Your task to perform on an android device: turn on the 24-hour format for clock Image 0: 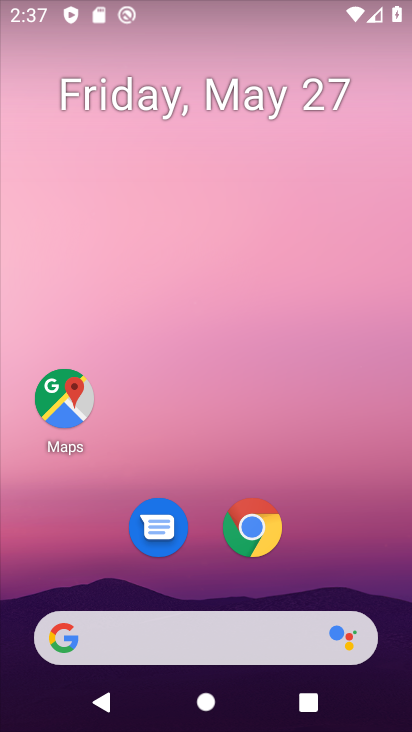
Step 0: drag from (288, 569) to (369, 22)
Your task to perform on an android device: turn on the 24-hour format for clock Image 1: 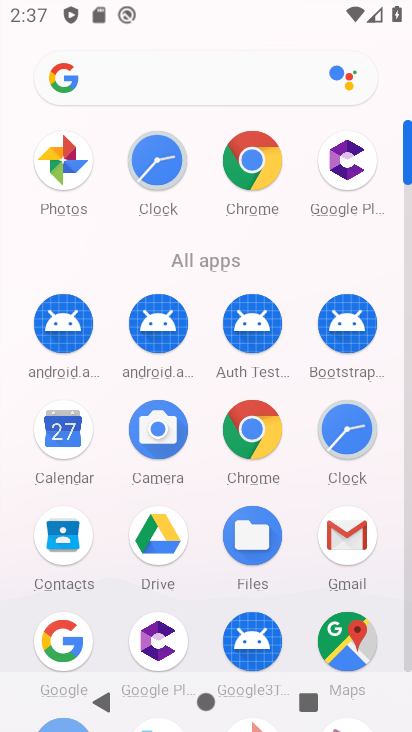
Step 1: click (334, 448)
Your task to perform on an android device: turn on the 24-hour format for clock Image 2: 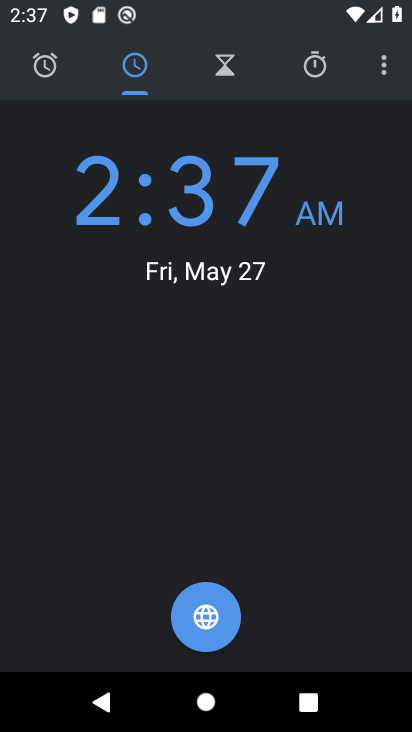
Step 2: click (387, 71)
Your task to perform on an android device: turn on the 24-hour format for clock Image 3: 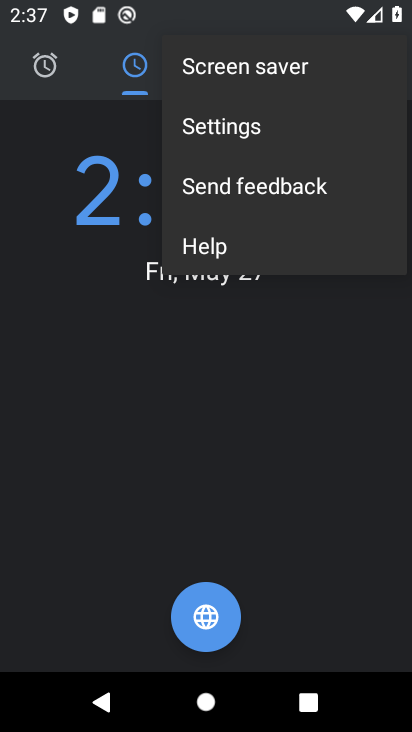
Step 3: click (296, 109)
Your task to perform on an android device: turn on the 24-hour format for clock Image 4: 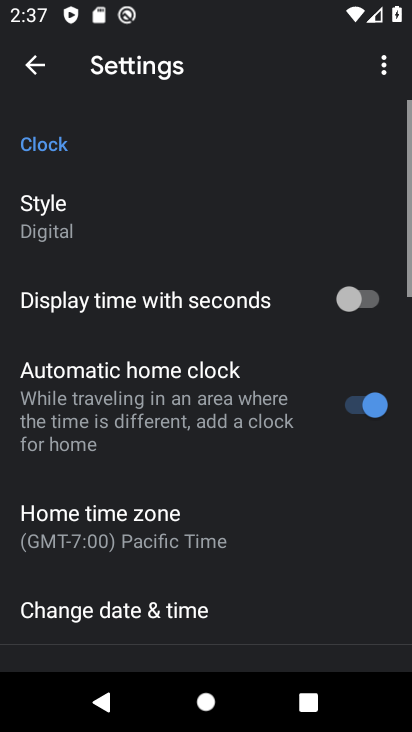
Step 4: drag from (238, 580) to (243, 267)
Your task to perform on an android device: turn on the 24-hour format for clock Image 5: 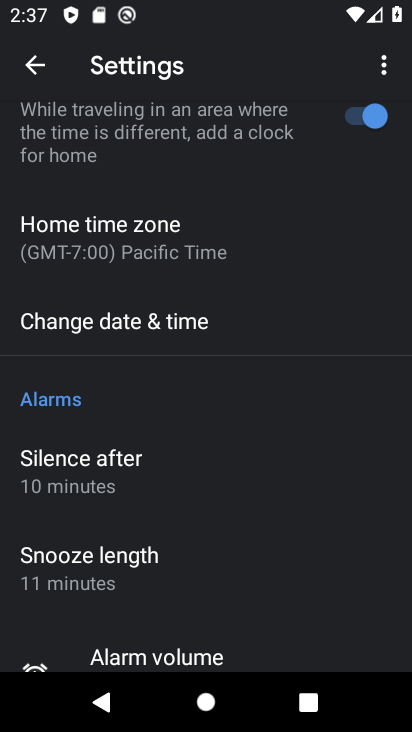
Step 5: click (155, 326)
Your task to perform on an android device: turn on the 24-hour format for clock Image 6: 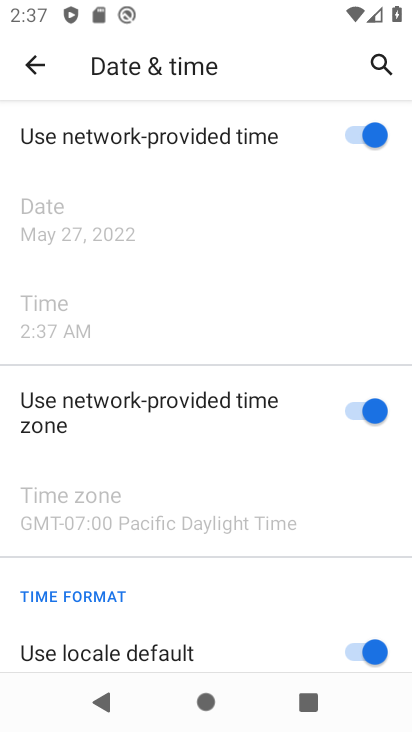
Step 6: drag from (150, 482) to (214, 126)
Your task to perform on an android device: turn on the 24-hour format for clock Image 7: 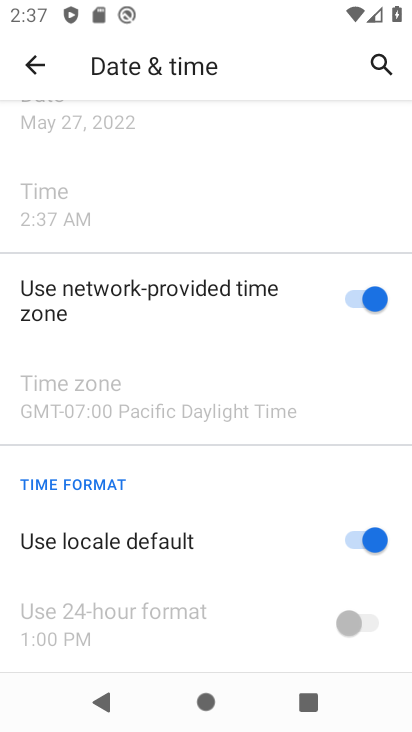
Step 7: drag from (243, 587) to (270, 352)
Your task to perform on an android device: turn on the 24-hour format for clock Image 8: 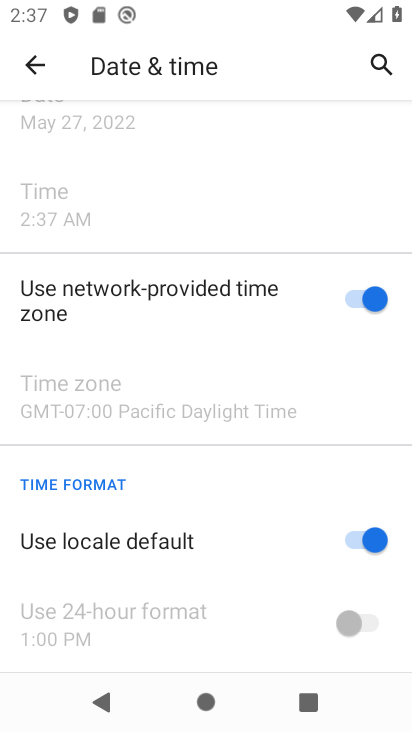
Step 8: click (337, 394)
Your task to perform on an android device: turn on the 24-hour format for clock Image 9: 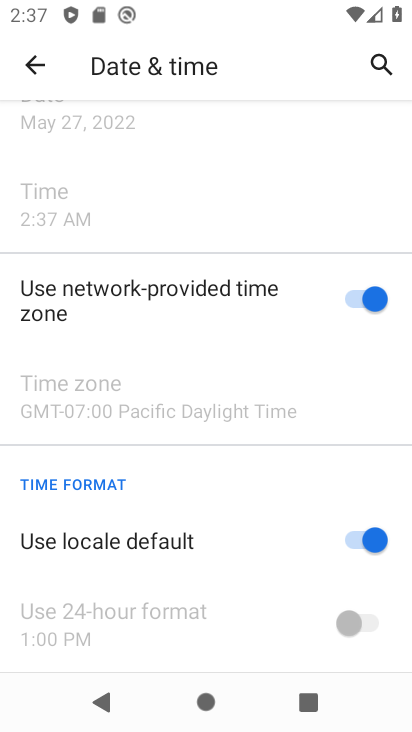
Step 9: drag from (338, 394) to (400, 329)
Your task to perform on an android device: turn on the 24-hour format for clock Image 10: 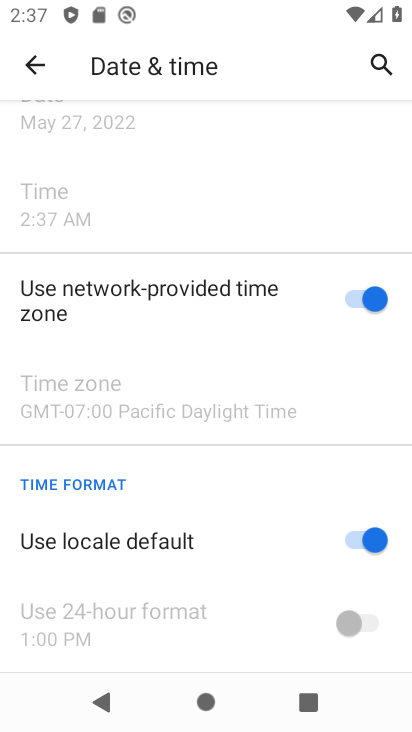
Step 10: click (346, 557)
Your task to perform on an android device: turn on the 24-hour format for clock Image 11: 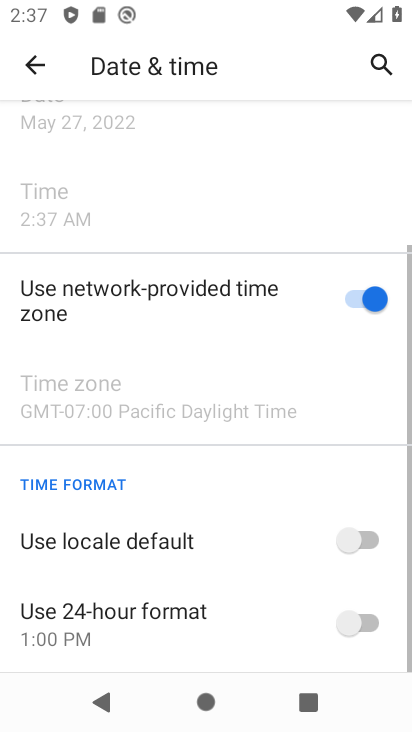
Step 11: click (369, 626)
Your task to perform on an android device: turn on the 24-hour format for clock Image 12: 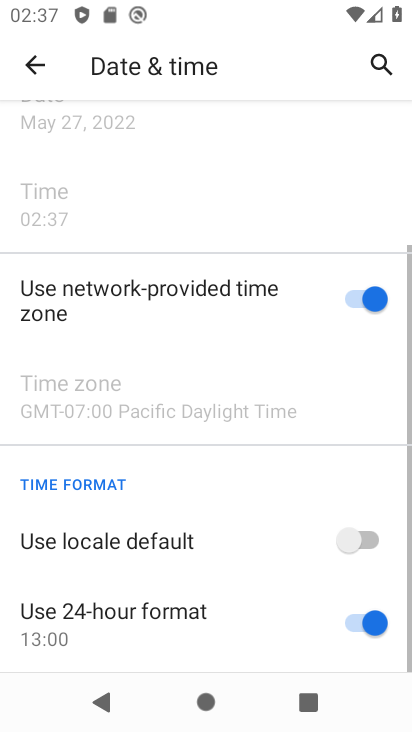
Step 12: task complete